Your task to perform on an android device: open a bookmark in the chrome app Image 0: 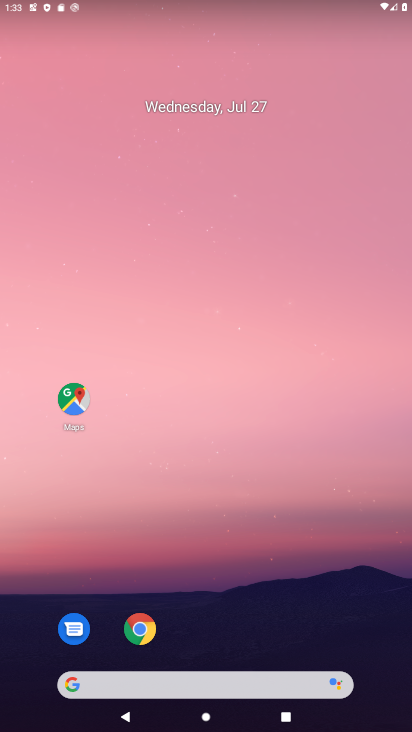
Step 0: drag from (301, 638) to (212, 13)
Your task to perform on an android device: open a bookmark in the chrome app Image 1: 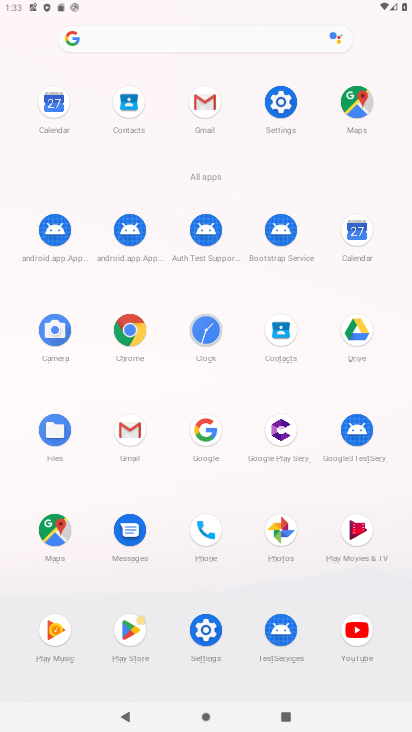
Step 1: click (128, 319)
Your task to perform on an android device: open a bookmark in the chrome app Image 2: 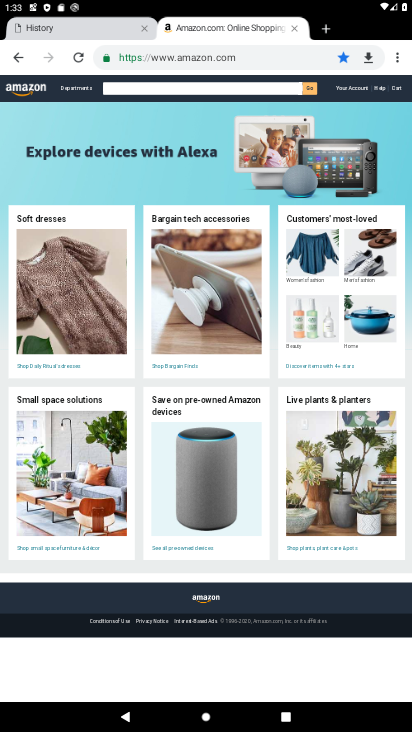
Step 2: click (397, 62)
Your task to perform on an android device: open a bookmark in the chrome app Image 3: 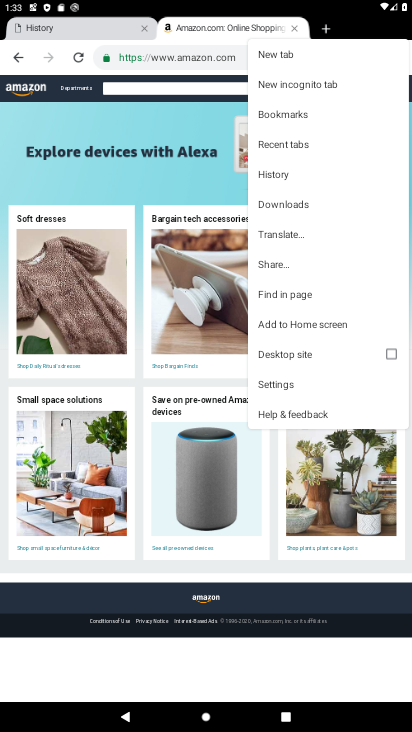
Step 3: click (325, 120)
Your task to perform on an android device: open a bookmark in the chrome app Image 4: 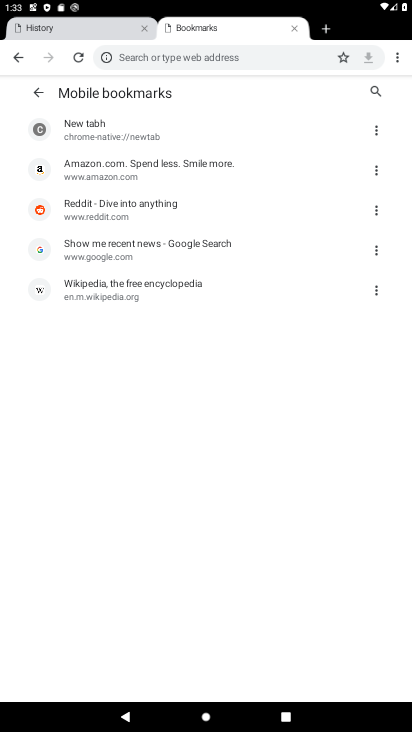
Step 4: click (269, 205)
Your task to perform on an android device: open a bookmark in the chrome app Image 5: 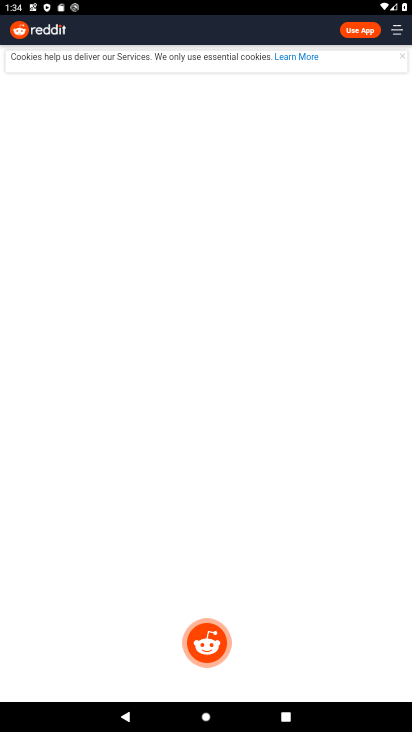
Step 5: task complete